Your task to perform on an android device: add a contact Image 0: 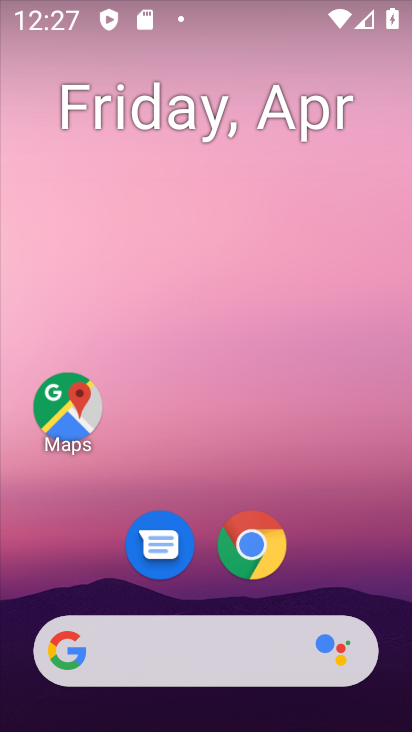
Step 0: drag from (282, 379) to (257, 184)
Your task to perform on an android device: add a contact Image 1: 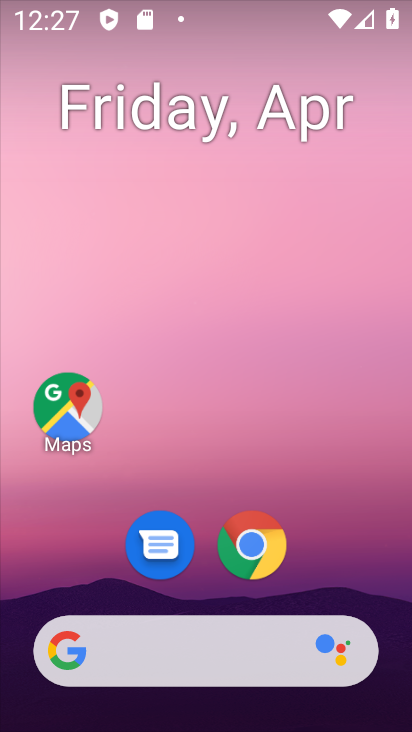
Step 1: drag from (325, 561) to (277, 22)
Your task to perform on an android device: add a contact Image 2: 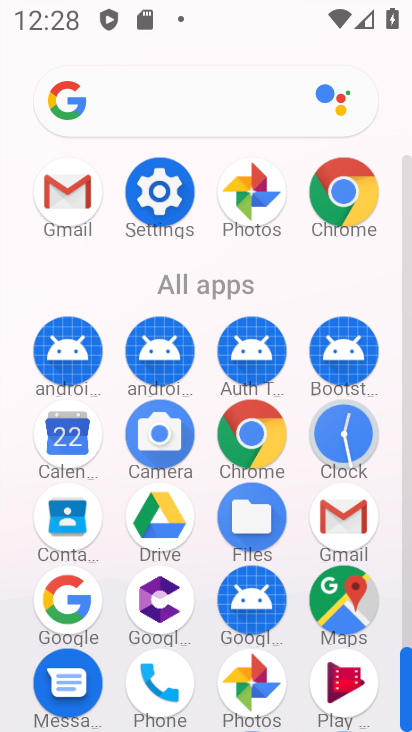
Step 2: click (69, 530)
Your task to perform on an android device: add a contact Image 3: 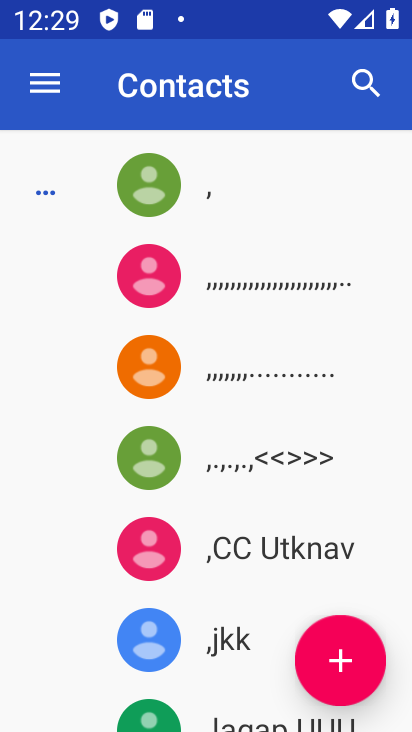
Step 3: click (339, 652)
Your task to perform on an android device: add a contact Image 4: 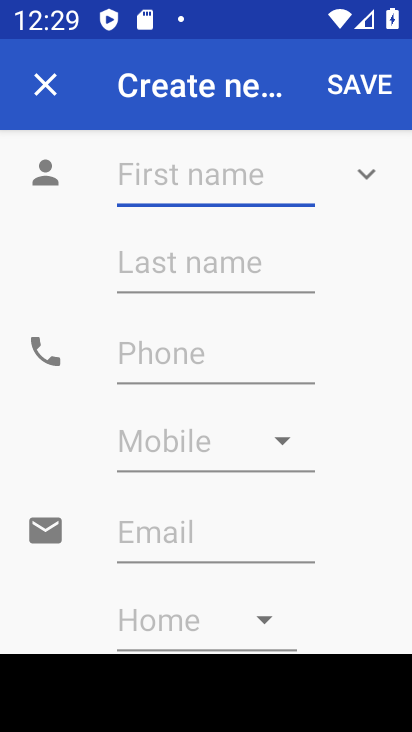
Step 4: click (185, 174)
Your task to perform on an android device: add a contact Image 5: 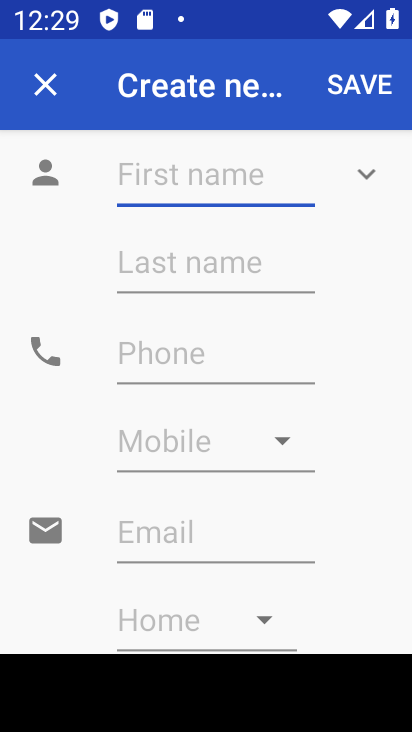
Step 5: type "rtyuytr"
Your task to perform on an android device: add a contact Image 6: 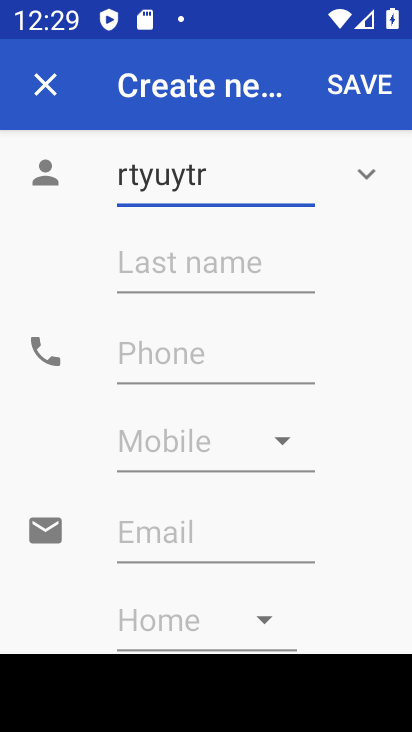
Step 6: click (178, 349)
Your task to perform on an android device: add a contact Image 7: 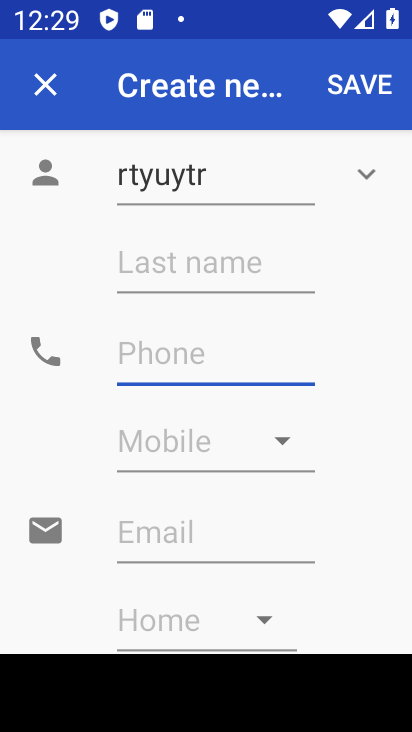
Step 7: type "4567894567"
Your task to perform on an android device: add a contact Image 8: 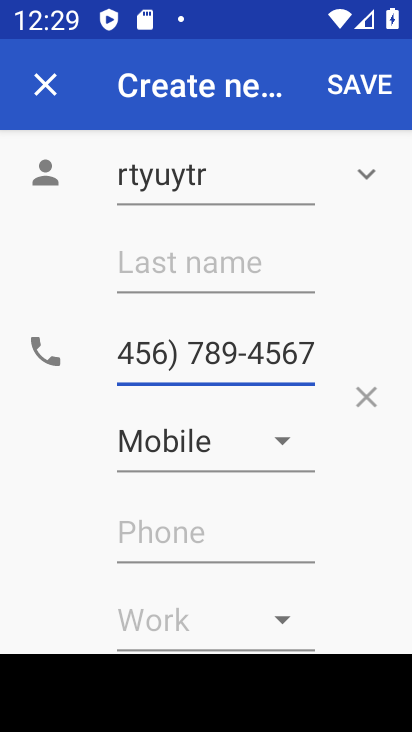
Step 8: click (372, 90)
Your task to perform on an android device: add a contact Image 9: 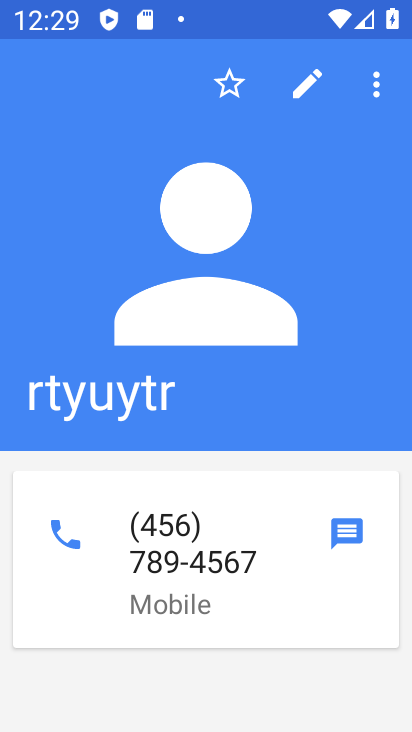
Step 9: task complete